Your task to perform on an android device: Open the calendar app, open the side menu, and click the "Day" option Image 0: 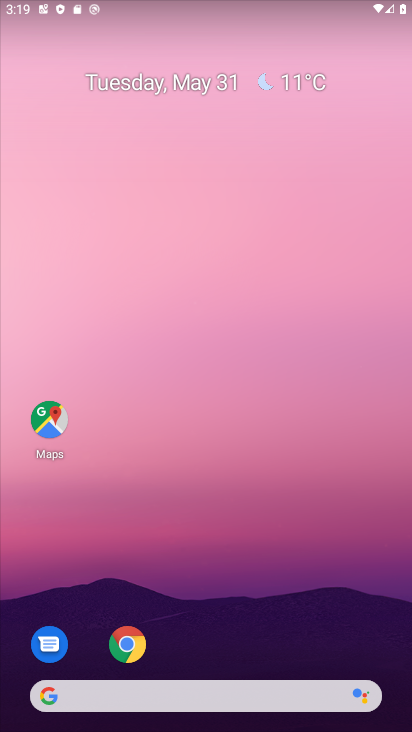
Step 0: drag from (225, 588) to (256, 145)
Your task to perform on an android device: Open the calendar app, open the side menu, and click the "Day" option Image 1: 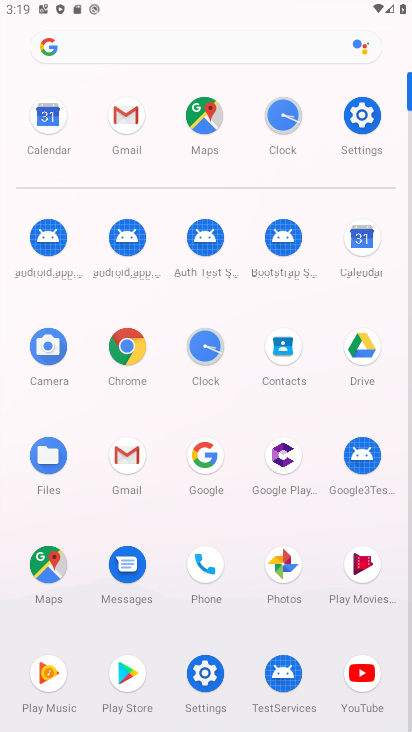
Step 1: click (353, 238)
Your task to perform on an android device: Open the calendar app, open the side menu, and click the "Day" option Image 2: 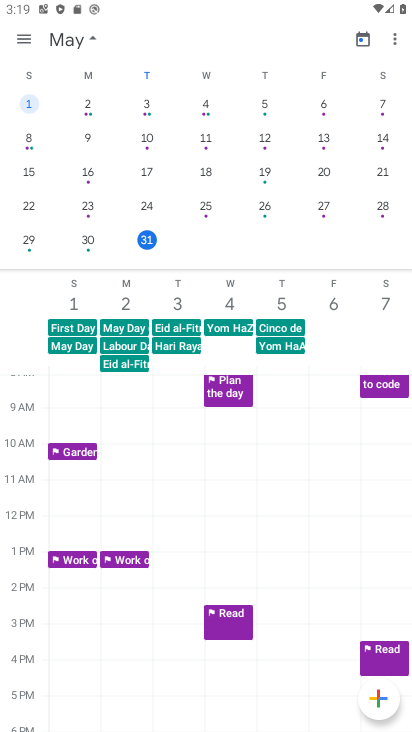
Step 2: click (21, 20)
Your task to perform on an android device: Open the calendar app, open the side menu, and click the "Day" option Image 3: 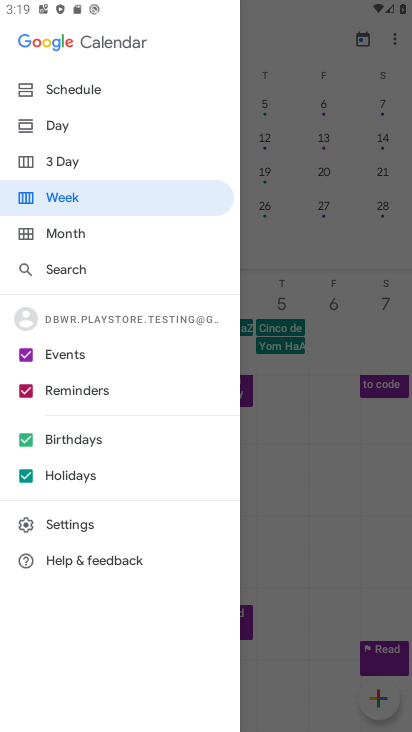
Step 3: click (64, 130)
Your task to perform on an android device: Open the calendar app, open the side menu, and click the "Day" option Image 4: 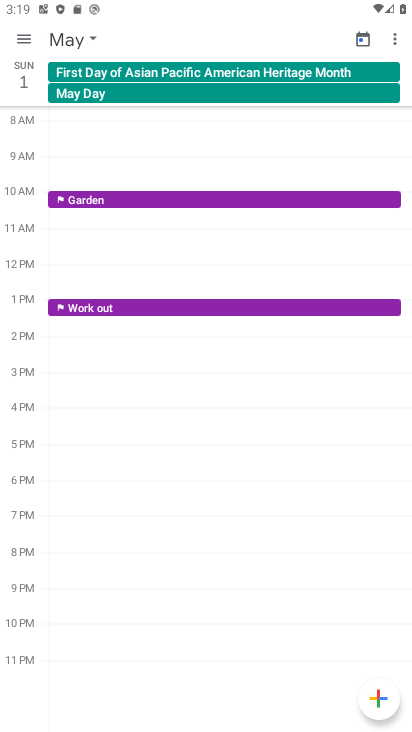
Step 4: task complete